Your task to perform on an android device: Search for a new bronzer Image 0: 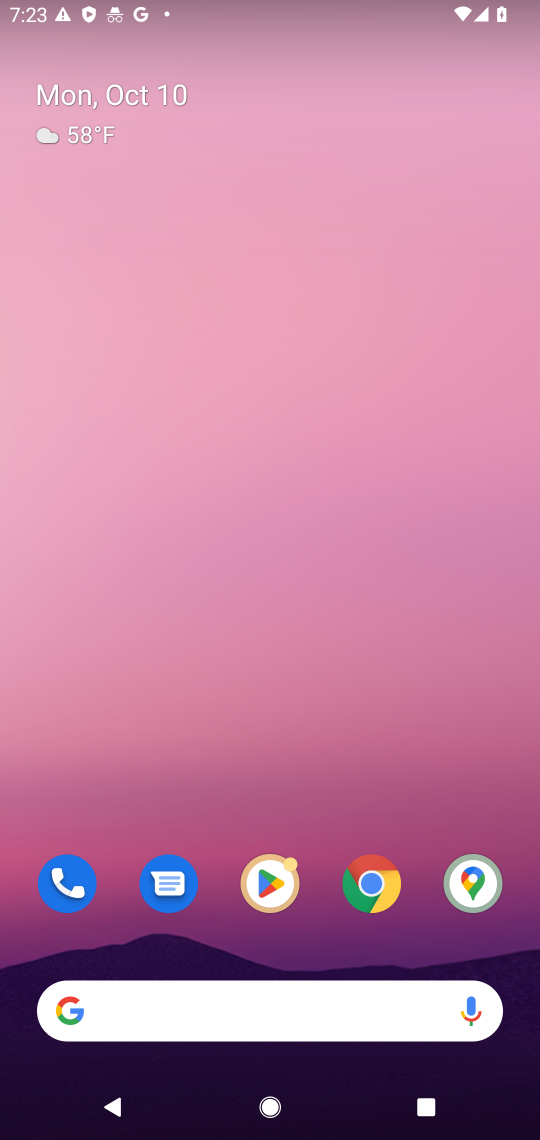
Step 0: drag from (232, 1008) to (269, 480)
Your task to perform on an android device: Search for a new bronzer Image 1: 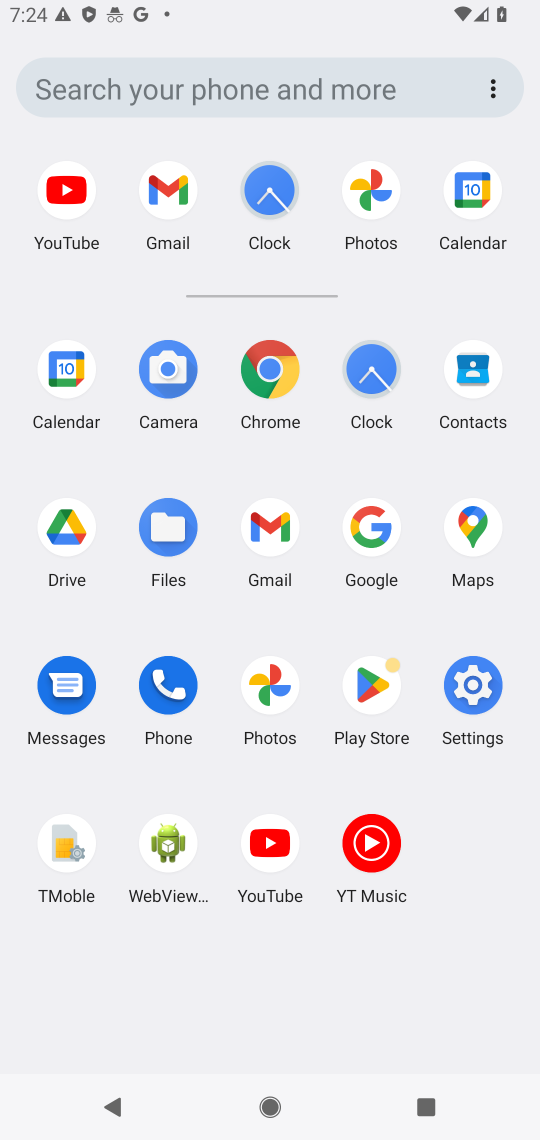
Step 1: click (375, 537)
Your task to perform on an android device: Search for a new bronzer Image 2: 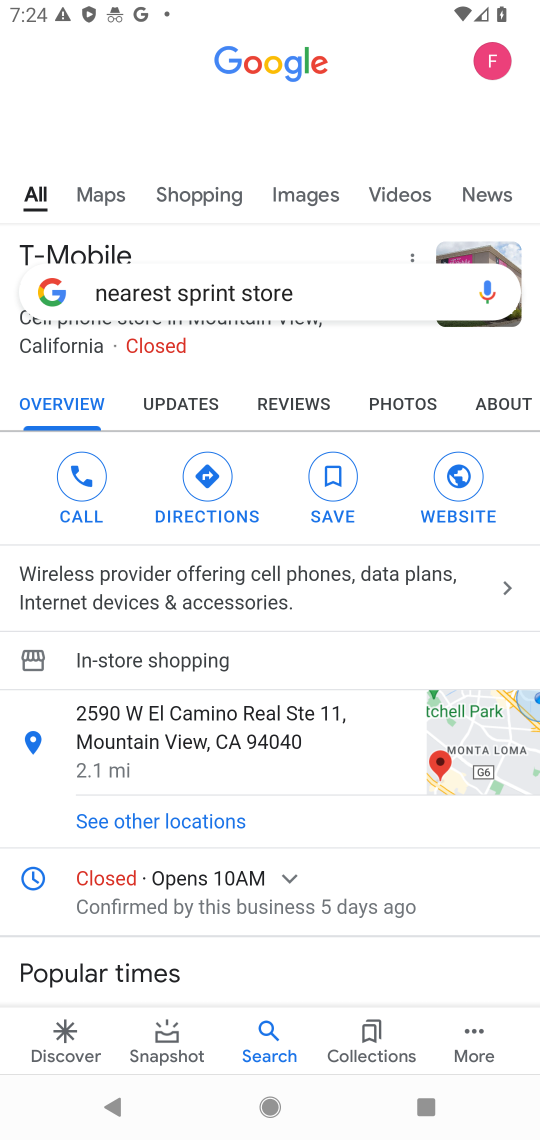
Step 2: click (389, 296)
Your task to perform on an android device: Search for a new bronzer Image 3: 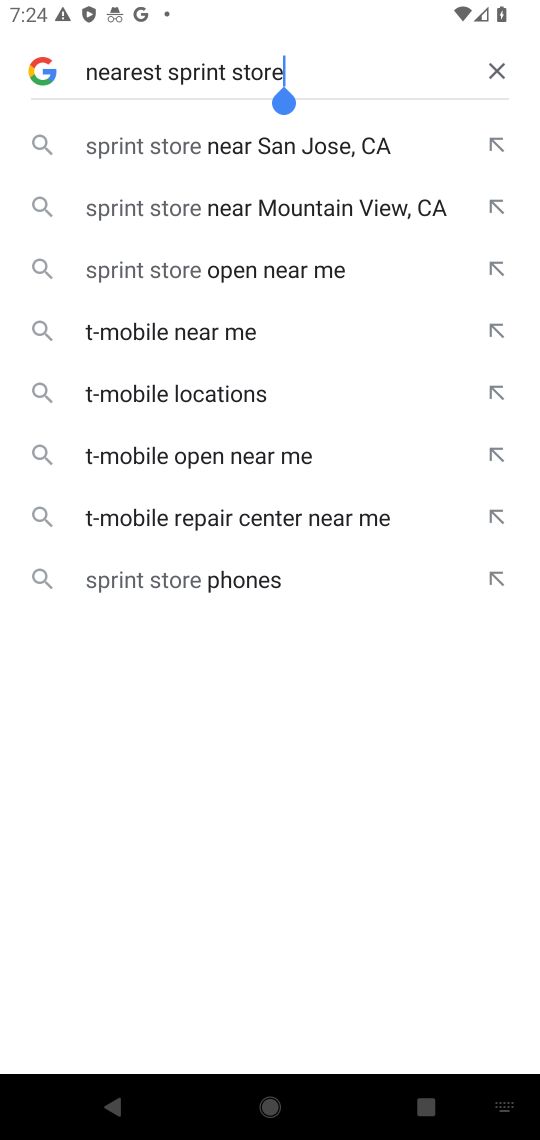
Step 3: click (500, 74)
Your task to perform on an android device: Search for a new bronzer Image 4: 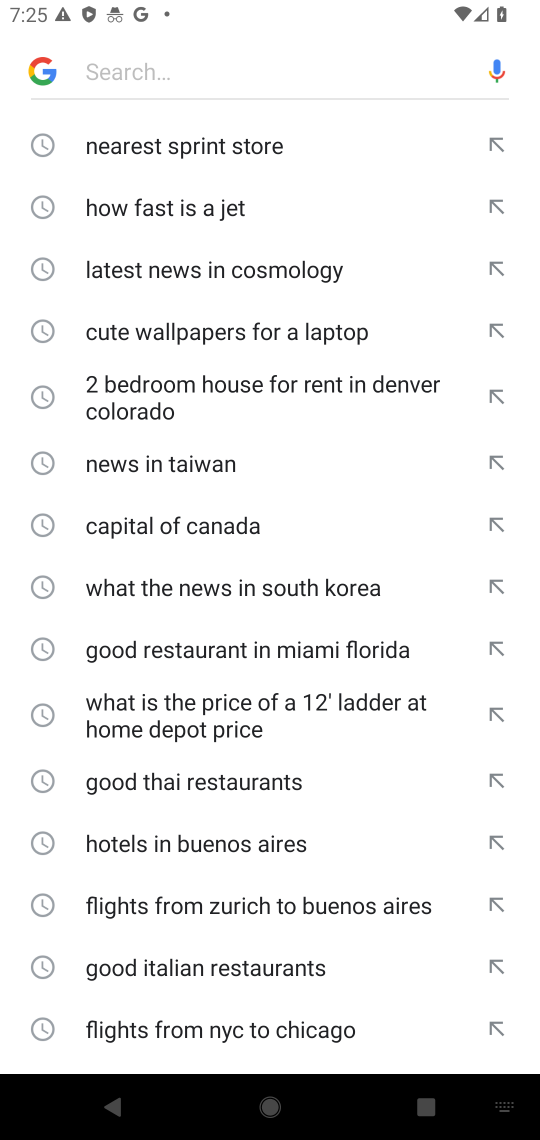
Step 4: type "new bronzer"
Your task to perform on an android device: Search for a new bronzer Image 5: 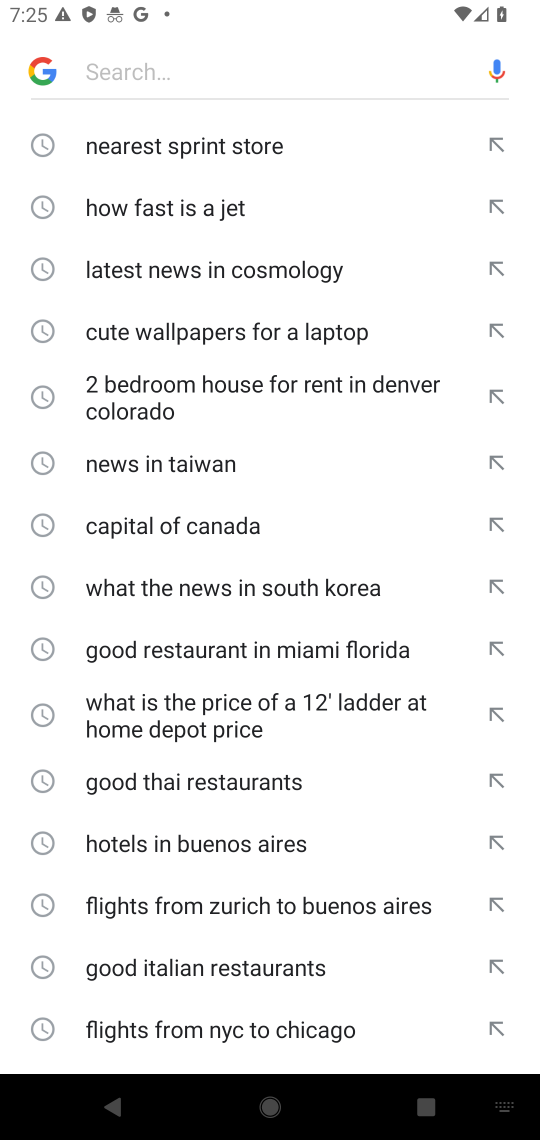
Step 5: click (352, 116)
Your task to perform on an android device: Search for a new bronzer Image 6: 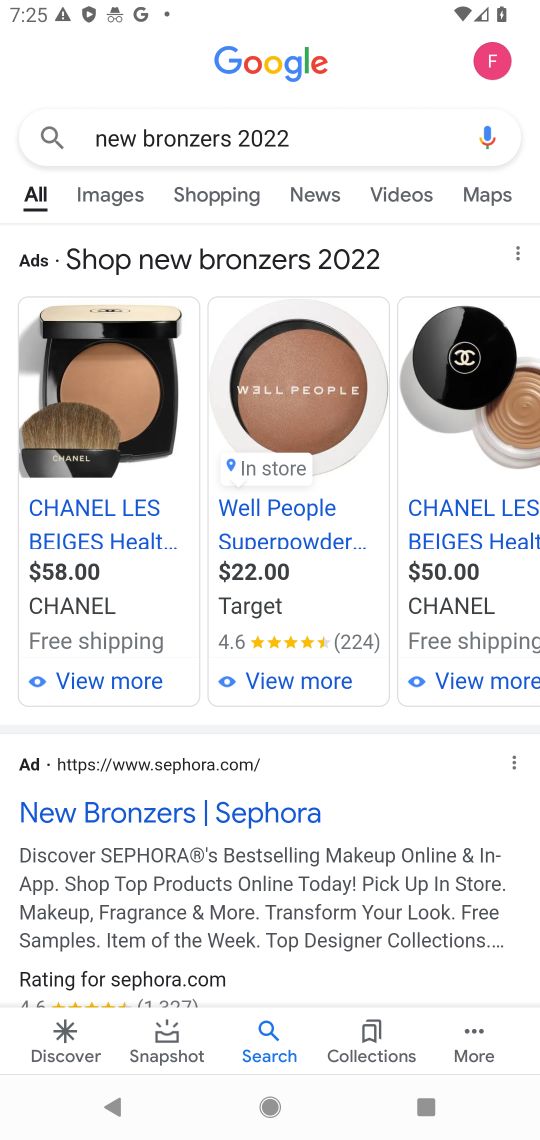
Step 6: task complete